Your task to perform on an android device: turn off location Image 0: 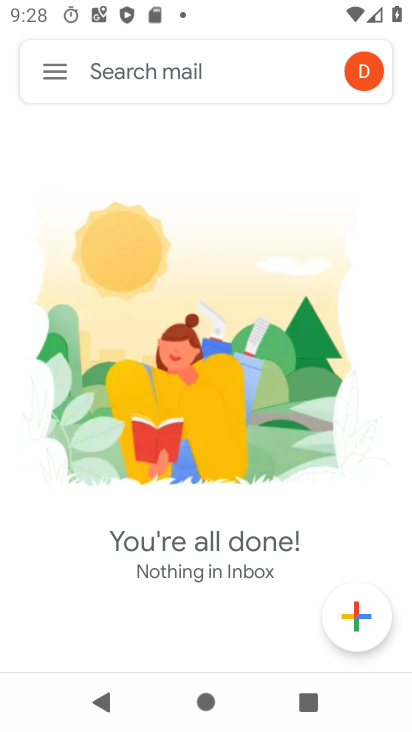
Step 0: press home button
Your task to perform on an android device: turn off location Image 1: 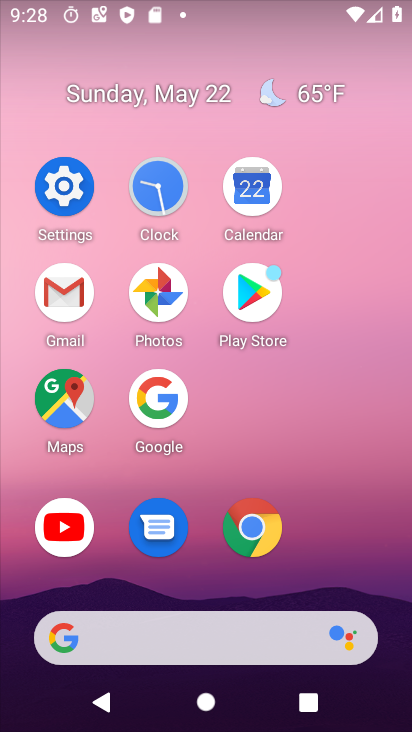
Step 1: click (57, 204)
Your task to perform on an android device: turn off location Image 2: 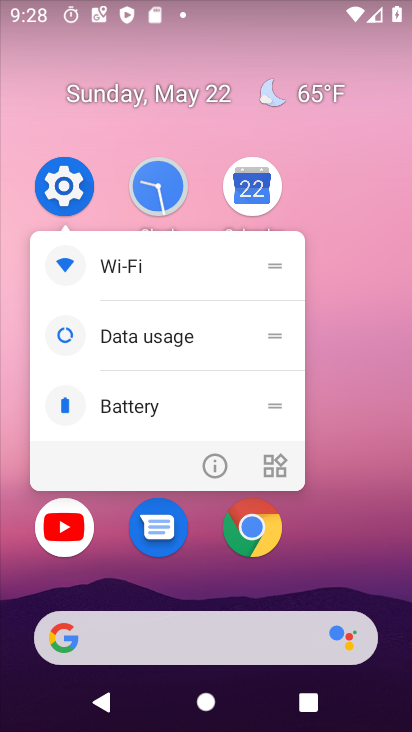
Step 2: click (71, 172)
Your task to perform on an android device: turn off location Image 3: 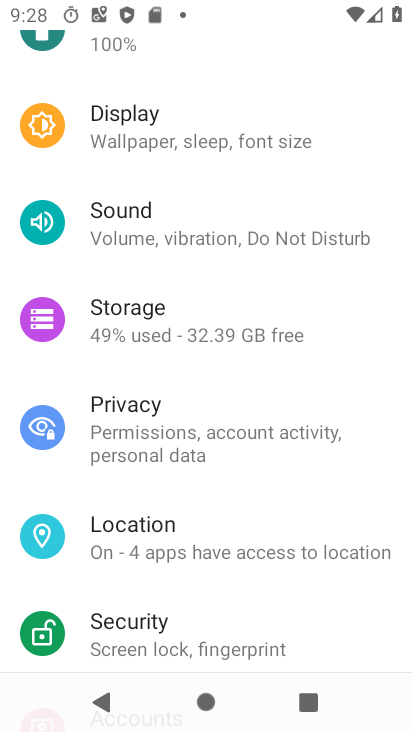
Step 3: click (200, 533)
Your task to perform on an android device: turn off location Image 4: 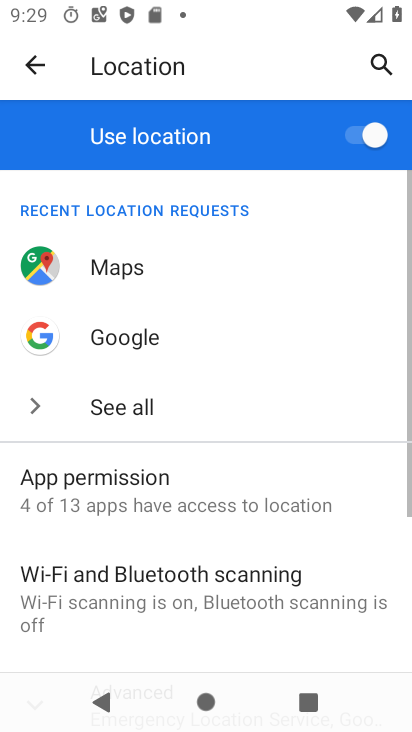
Step 4: click (384, 139)
Your task to perform on an android device: turn off location Image 5: 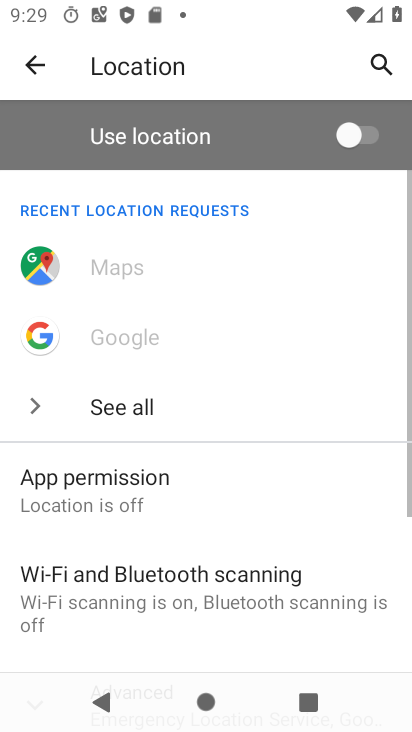
Step 5: task complete